Your task to perform on an android device: Open settings Image 0: 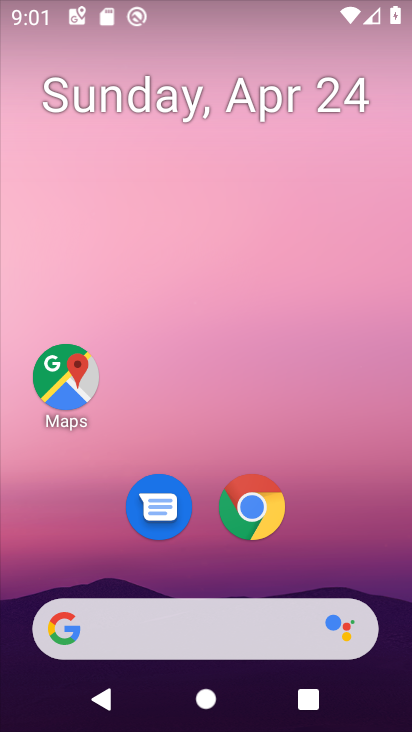
Step 0: drag from (324, 512) to (292, 73)
Your task to perform on an android device: Open settings Image 1: 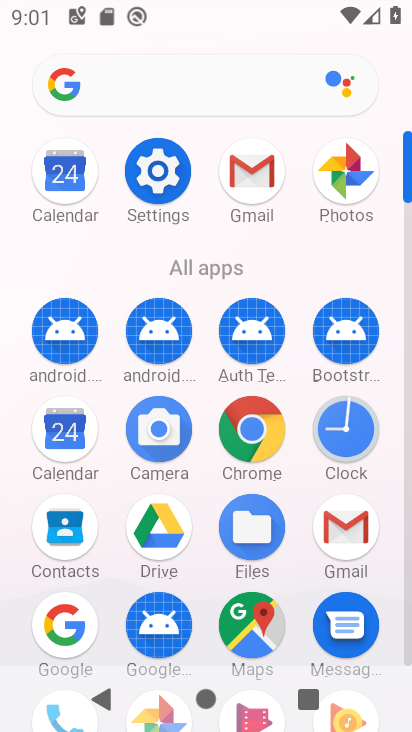
Step 1: click (161, 192)
Your task to perform on an android device: Open settings Image 2: 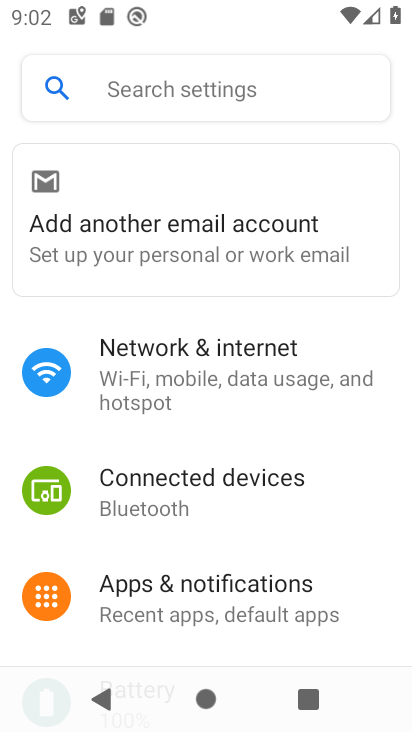
Step 2: task complete